Your task to perform on an android device: Search for Mexican restaurants on Maps Image 0: 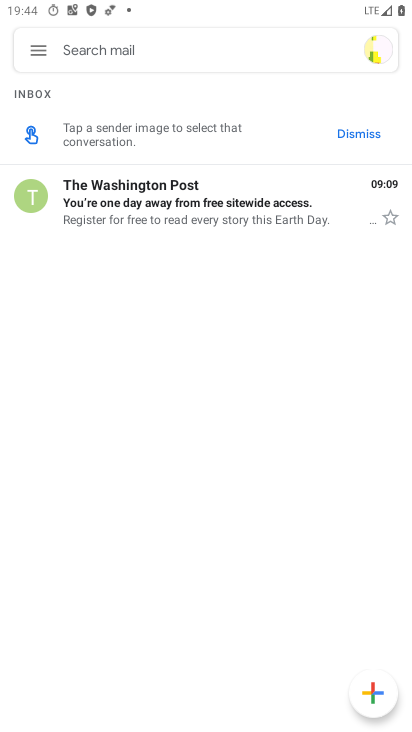
Step 0: press home button
Your task to perform on an android device: Search for Mexican restaurants on Maps Image 1: 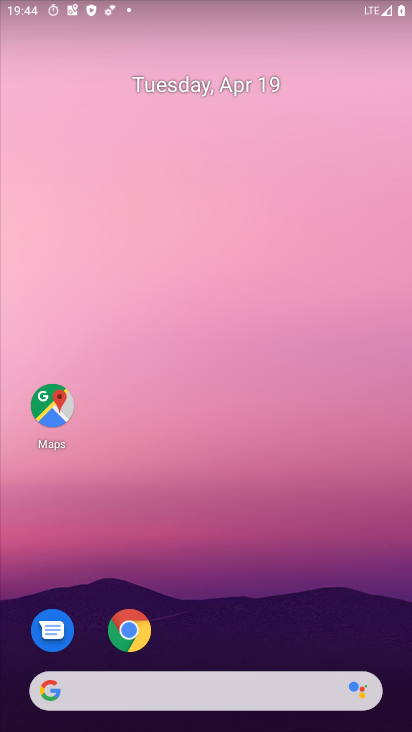
Step 1: click (38, 412)
Your task to perform on an android device: Search for Mexican restaurants on Maps Image 2: 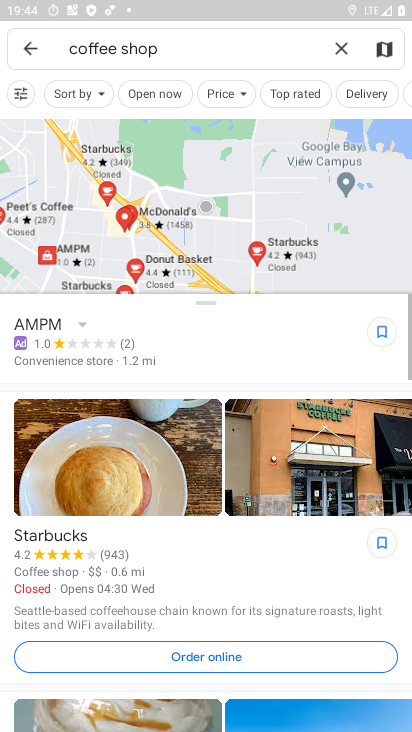
Step 2: click (333, 40)
Your task to perform on an android device: Search for Mexican restaurants on Maps Image 3: 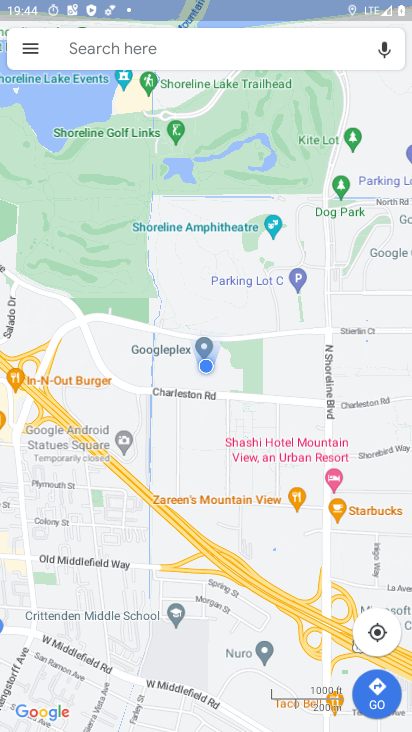
Step 3: click (196, 53)
Your task to perform on an android device: Search for Mexican restaurants on Maps Image 4: 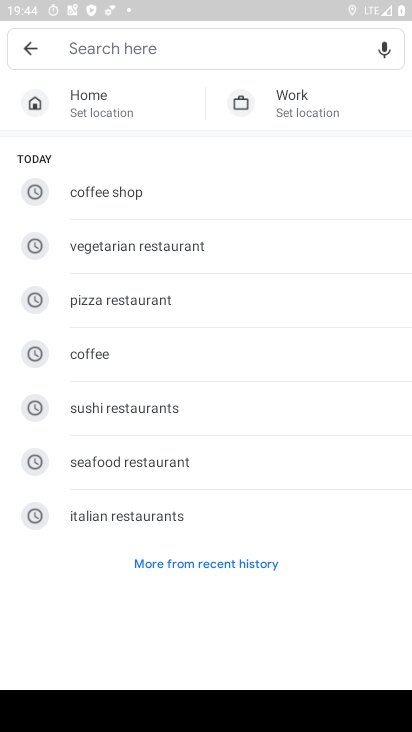
Step 4: type "mexican restuarant"
Your task to perform on an android device: Search for Mexican restaurants on Maps Image 5: 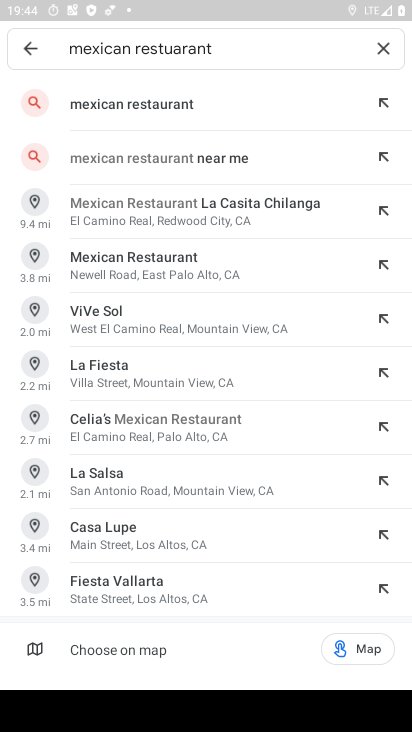
Step 5: click (126, 116)
Your task to perform on an android device: Search for Mexican restaurants on Maps Image 6: 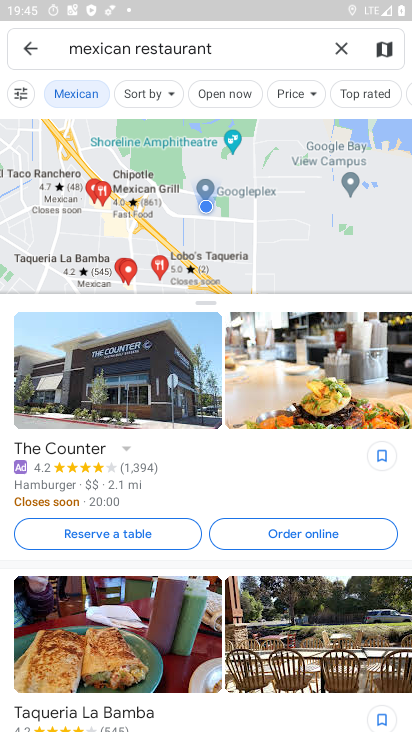
Step 6: task complete